Your task to perform on an android device: Open Amazon Image 0: 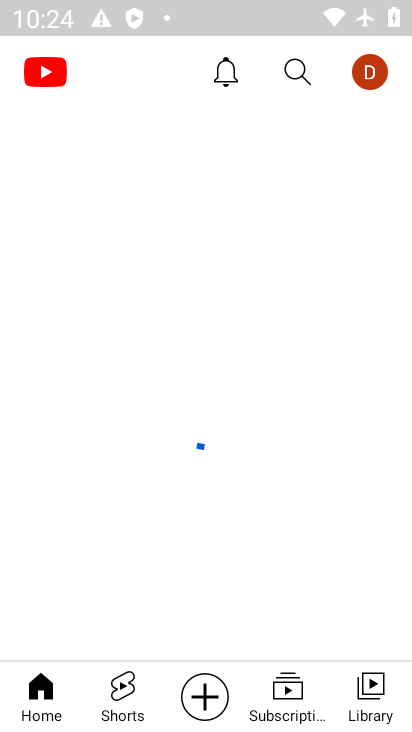
Step 0: press home button
Your task to perform on an android device: Open Amazon Image 1: 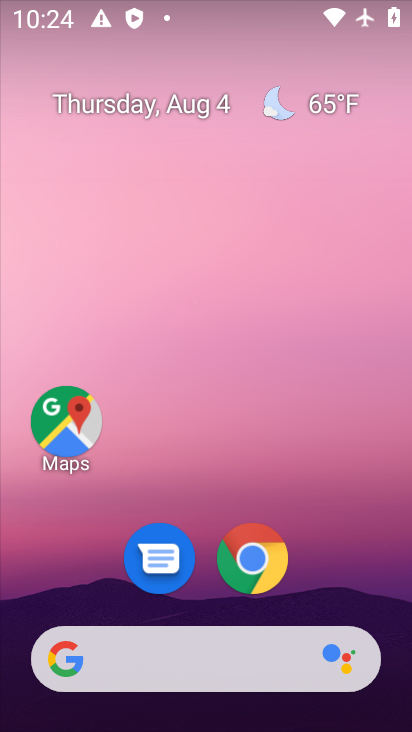
Step 1: drag from (361, 544) to (329, 21)
Your task to perform on an android device: Open Amazon Image 2: 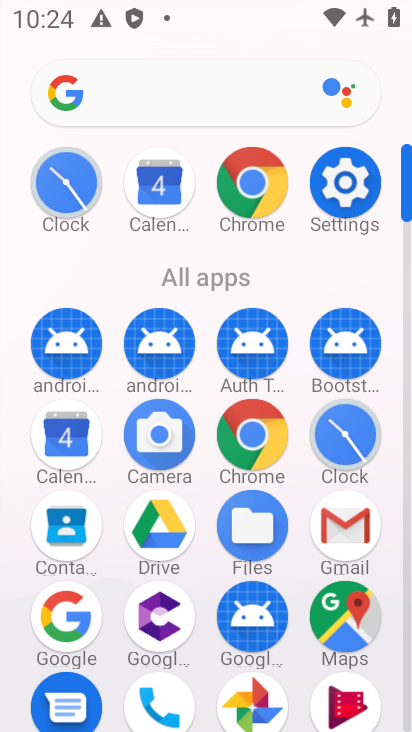
Step 2: click (252, 435)
Your task to perform on an android device: Open Amazon Image 3: 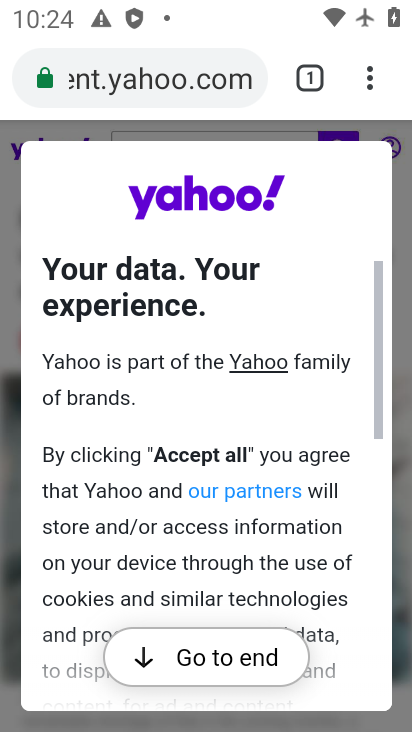
Step 3: click (214, 78)
Your task to perform on an android device: Open Amazon Image 4: 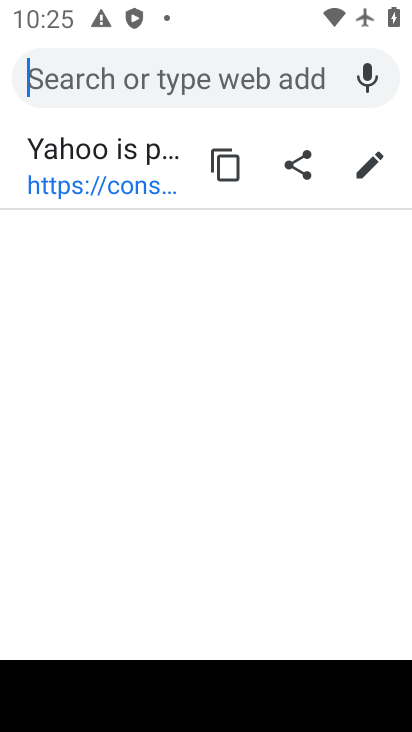
Step 4: type "amazon"
Your task to perform on an android device: Open Amazon Image 5: 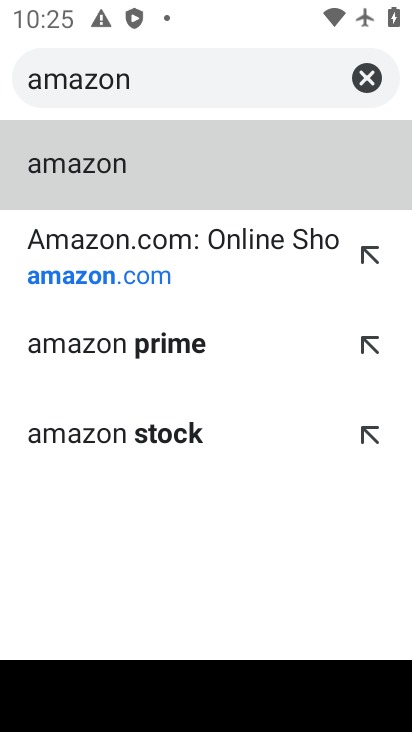
Step 5: click (113, 277)
Your task to perform on an android device: Open Amazon Image 6: 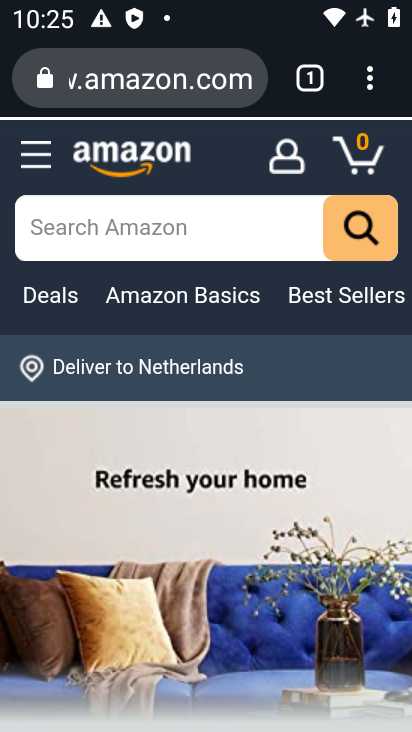
Step 6: task complete